Your task to perform on an android device: stop showing notifications on the lock screen Image 0: 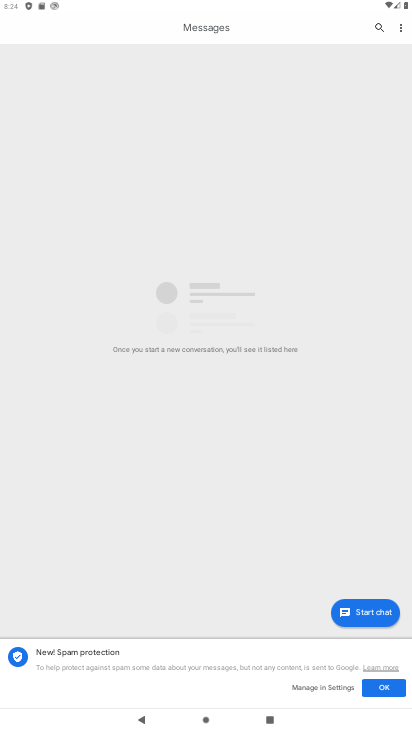
Step 0: drag from (210, 646) to (231, 52)
Your task to perform on an android device: stop showing notifications on the lock screen Image 1: 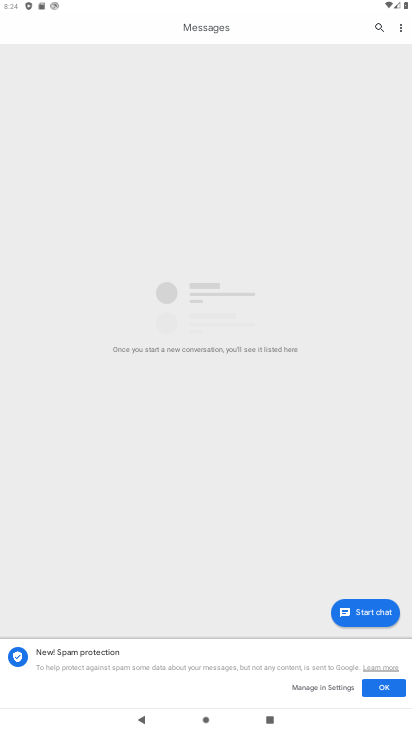
Step 1: press home button
Your task to perform on an android device: stop showing notifications on the lock screen Image 2: 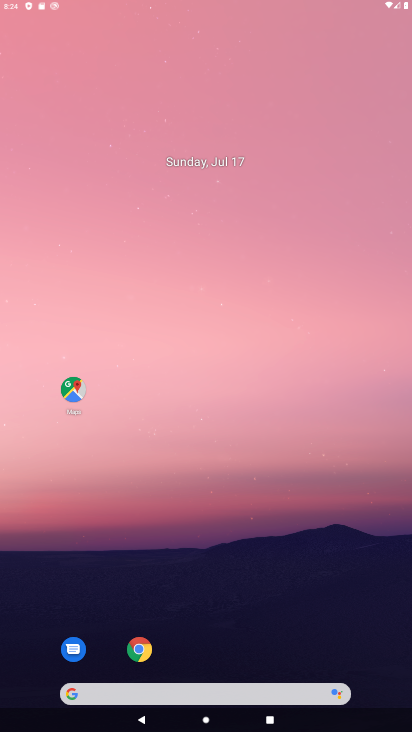
Step 2: drag from (215, 655) to (234, 17)
Your task to perform on an android device: stop showing notifications on the lock screen Image 3: 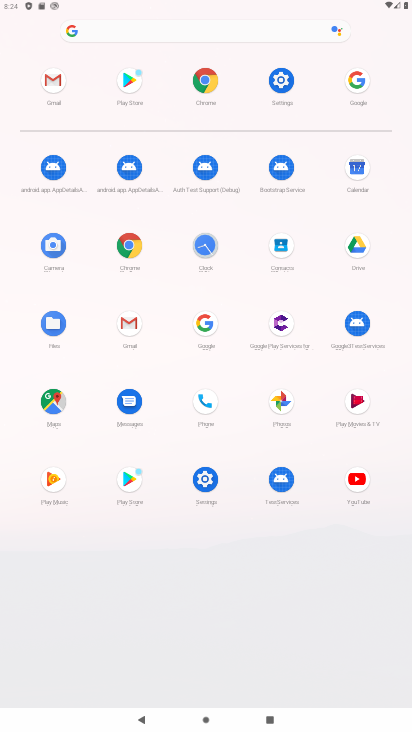
Step 3: click (200, 482)
Your task to perform on an android device: stop showing notifications on the lock screen Image 4: 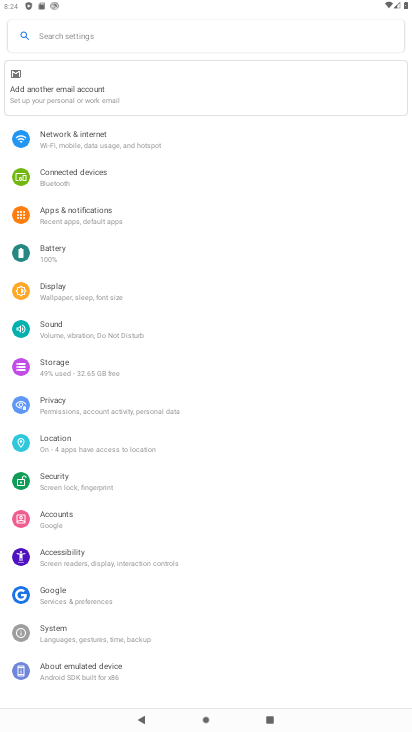
Step 4: click (103, 213)
Your task to perform on an android device: stop showing notifications on the lock screen Image 5: 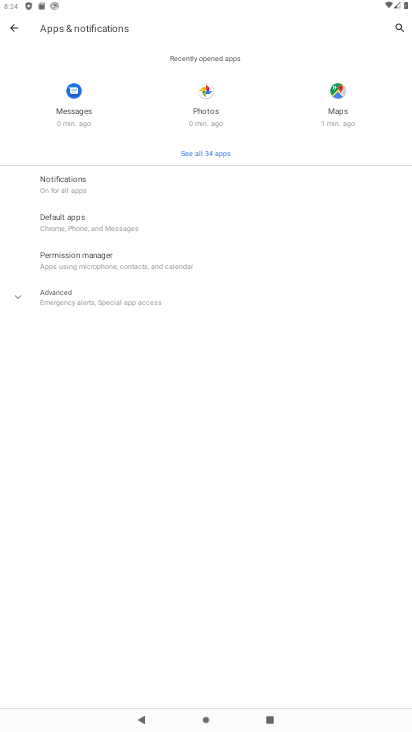
Step 5: click (91, 181)
Your task to perform on an android device: stop showing notifications on the lock screen Image 6: 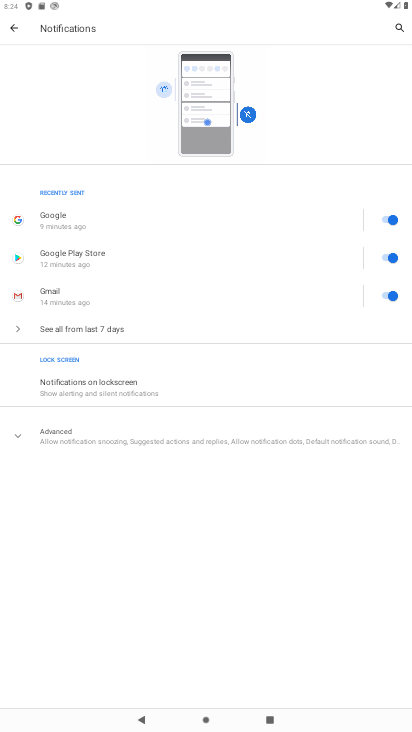
Step 6: click (101, 397)
Your task to perform on an android device: stop showing notifications on the lock screen Image 7: 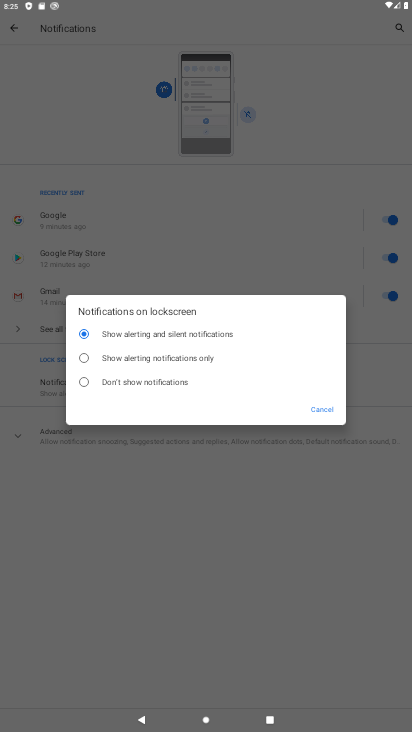
Step 7: click (84, 380)
Your task to perform on an android device: stop showing notifications on the lock screen Image 8: 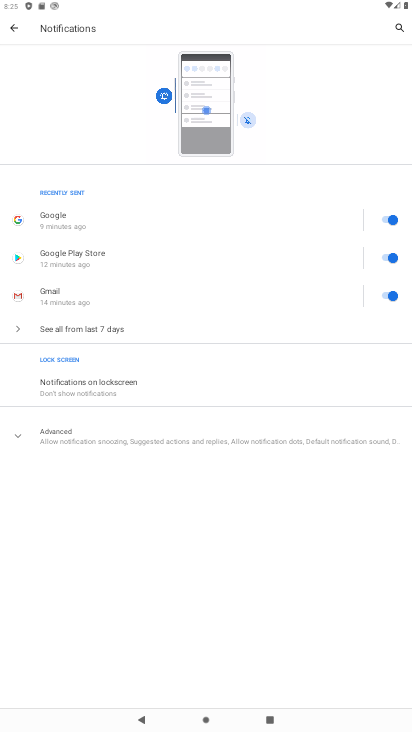
Step 8: task complete